Your task to perform on an android device: Open Android settings Image 0: 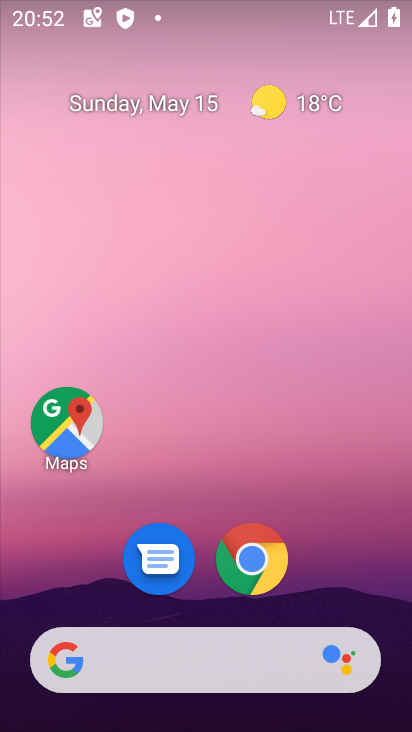
Step 0: drag from (214, 495) to (106, 49)
Your task to perform on an android device: Open Android settings Image 1: 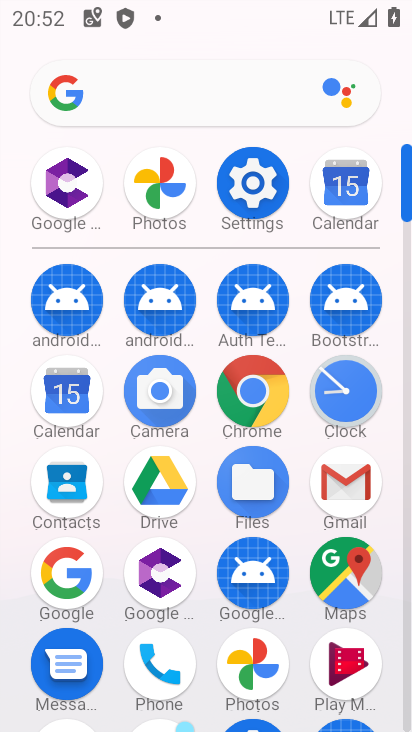
Step 1: click (256, 189)
Your task to perform on an android device: Open Android settings Image 2: 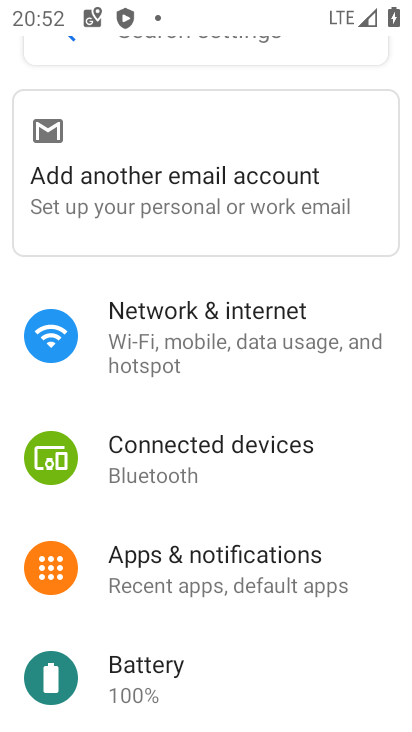
Step 2: task complete